Your task to perform on an android device: turn on airplane mode Image 0: 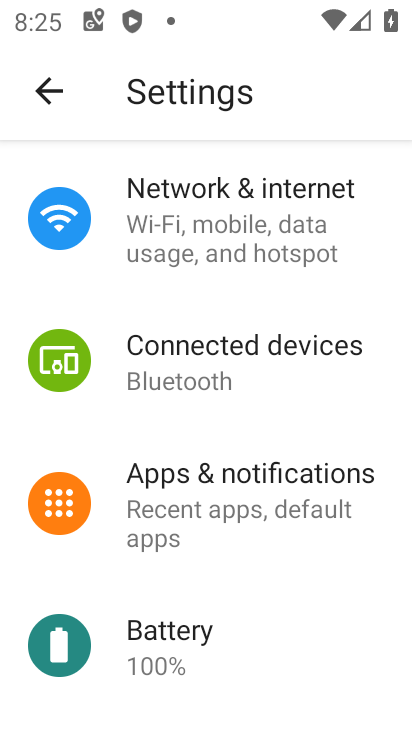
Step 0: drag from (236, 256) to (236, 685)
Your task to perform on an android device: turn on airplane mode Image 1: 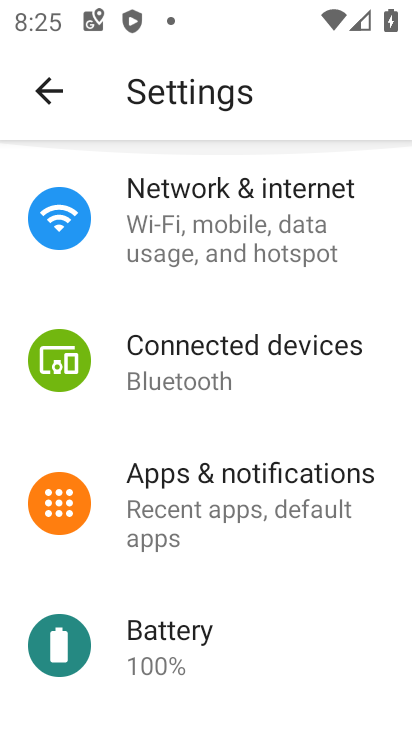
Step 1: click (239, 232)
Your task to perform on an android device: turn on airplane mode Image 2: 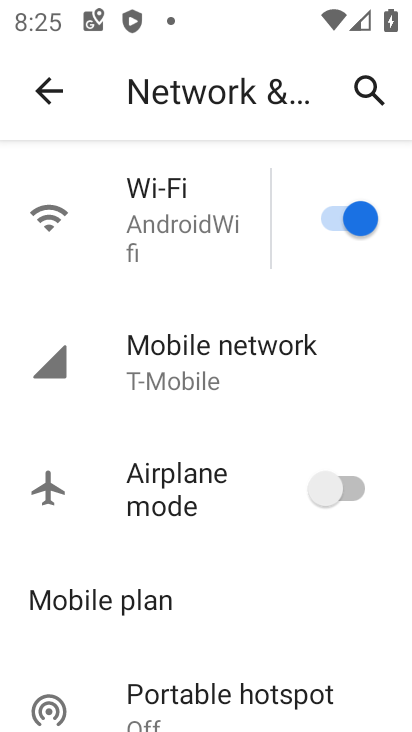
Step 2: click (352, 487)
Your task to perform on an android device: turn on airplane mode Image 3: 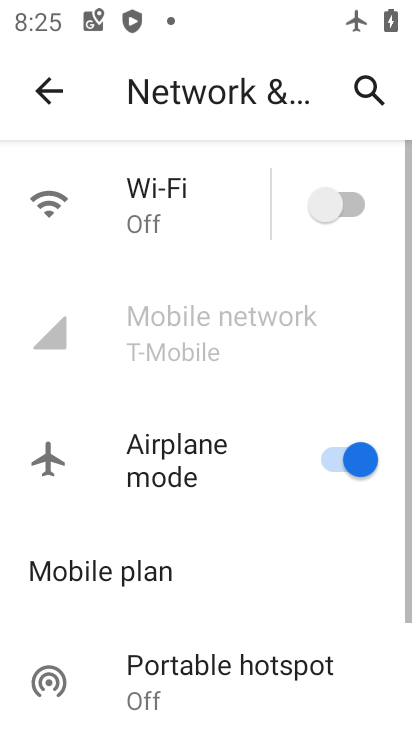
Step 3: task complete